Your task to perform on an android device: delete a single message in the gmail app Image 0: 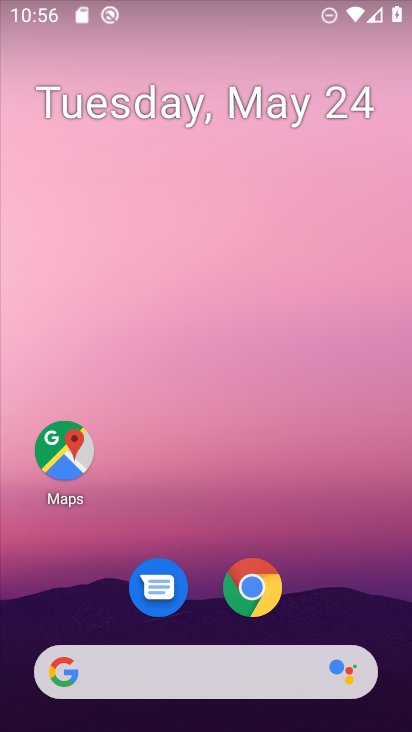
Step 0: drag from (342, 584) to (317, 120)
Your task to perform on an android device: delete a single message in the gmail app Image 1: 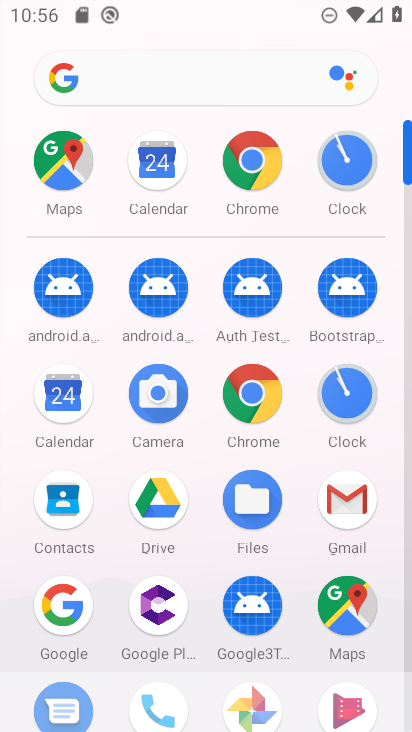
Step 1: click (352, 485)
Your task to perform on an android device: delete a single message in the gmail app Image 2: 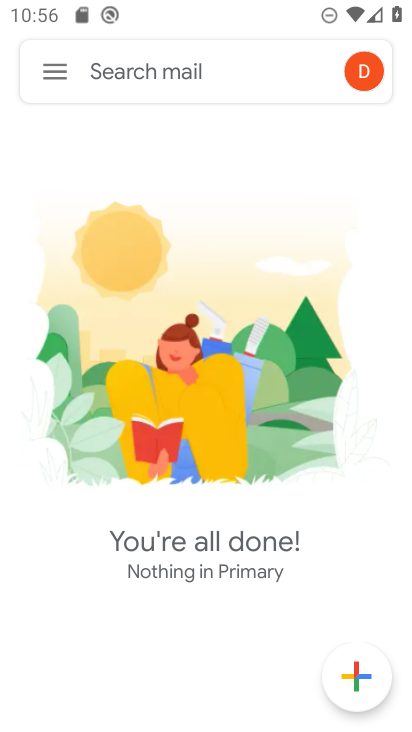
Step 2: click (44, 69)
Your task to perform on an android device: delete a single message in the gmail app Image 3: 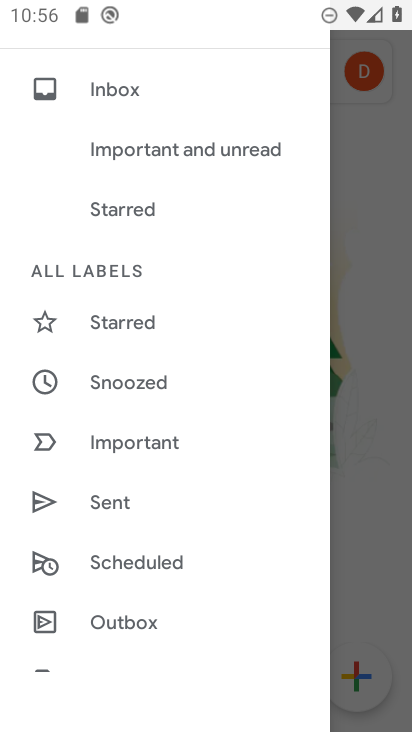
Step 3: task complete